Your task to perform on an android device: Show me popular games on the Play Store Image 0: 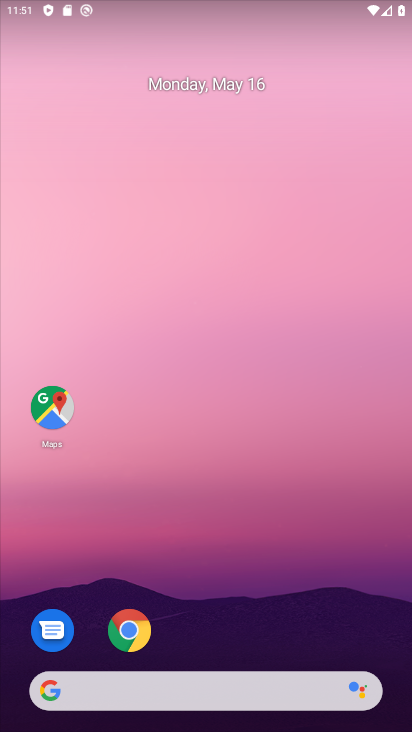
Step 0: drag from (231, 586) to (227, 184)
Your task to perform on an android device: Show me popular games on the Play Store Image 1: 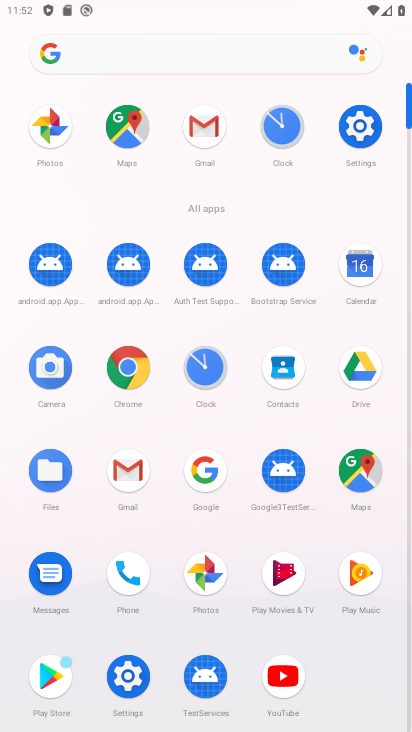
Step 1: click (57, 683)
Your task to perform on an android device: Show me popular games on the Play Store Image 2: 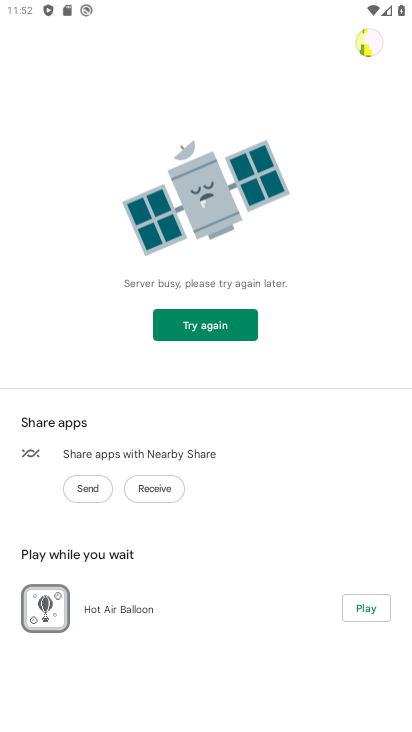
Step 2: task complete